Your task to perform on an android device: star an email in the gmail app Image 0: 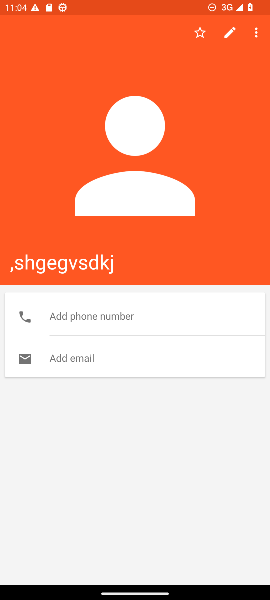
Step 0: press home button
Your task to perform on an android device: star an email in the gmail app Image 1: 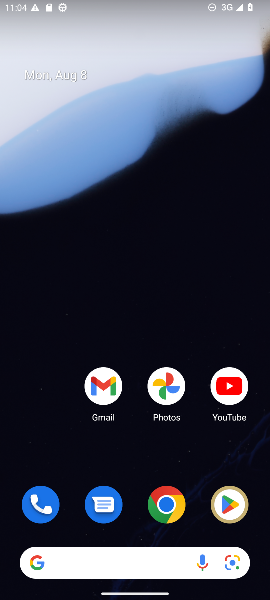
Step 1: click (114, 385)
Your task to perform on an android device: star an email in the gmail app Image 2: 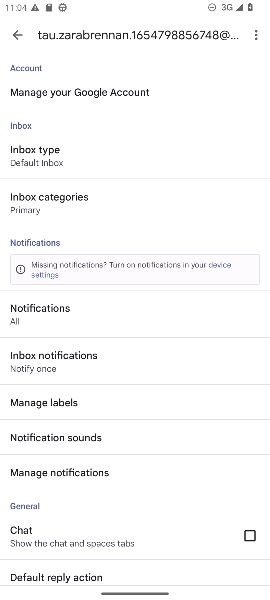
Step 2: click (19, 44)
Your task to perform on an android device: star an email in the gmail app Image 3: 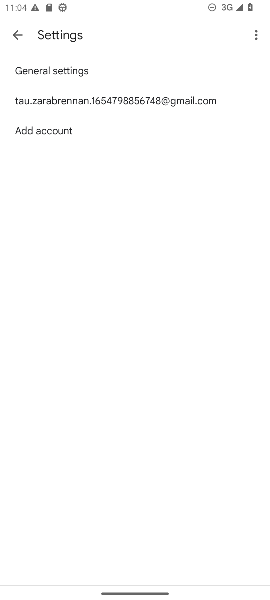
Step 3: click (11, 27)
Your task to perform on an android device: star an email in the gmail app Image 4: 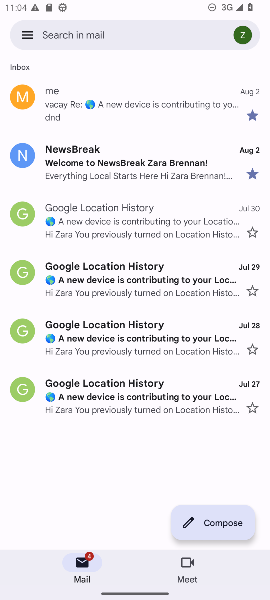
Step 4: click (253, 233)
Your task to perform on an android device: star an email in the gmail app Image 5: 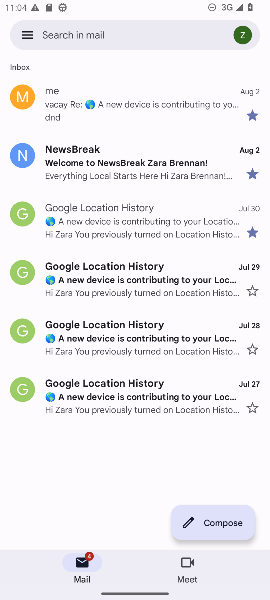
Step 5: task complete